Your task to perform on an android device: Go to Maps Image 0: 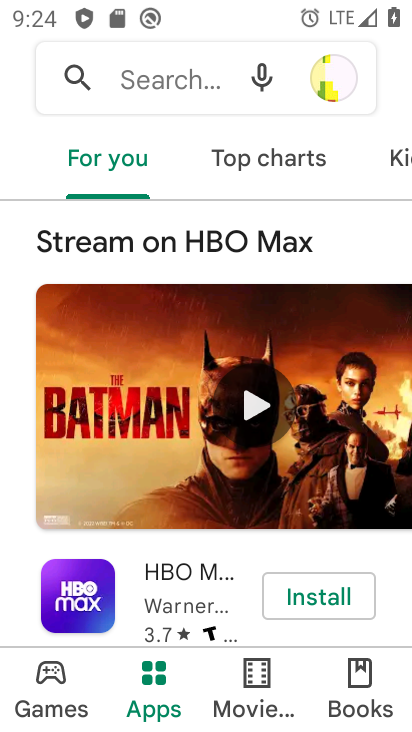
Step 0: click (210, 224)
Your task to perform on an android device: Go to Maps Image 1: 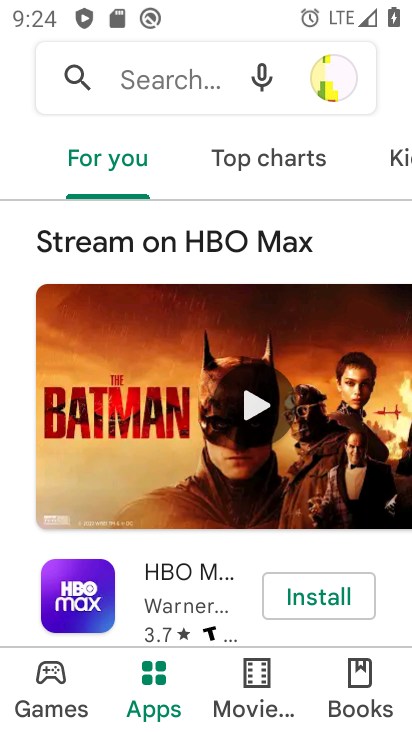
Step 1: drag from (127, 448) to (274, 113)
Your task to perform on an android device: Go to Maps Image 2: 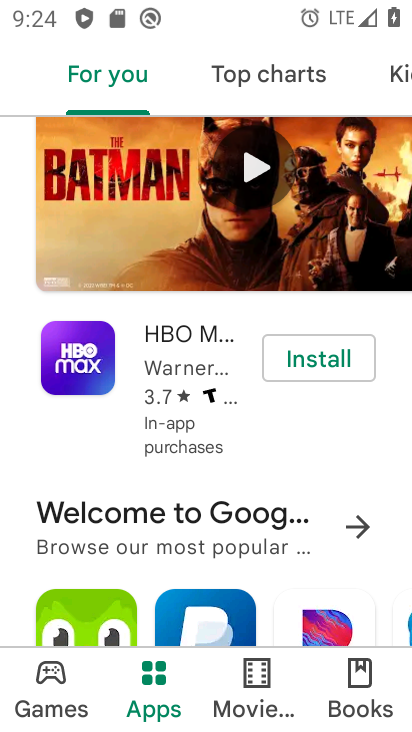
Step 2: drag from (242, 280) to (314, 676)
Your task to perform on an android device: Go to Maps Image 3: 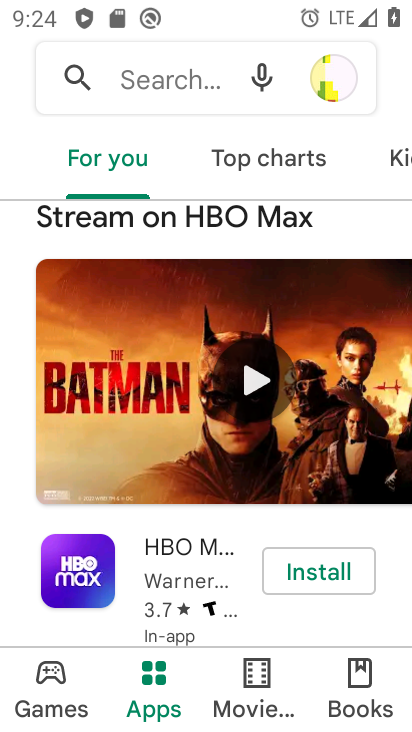
Step 3: press home button
Your task to perform on an android device: Go to Maps Image 4: 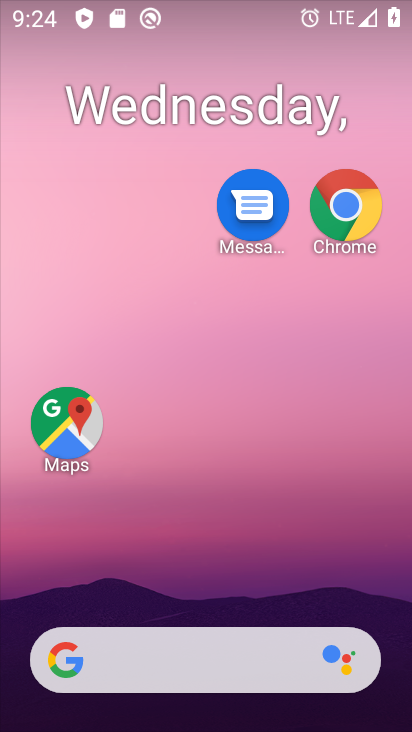
Step 4: click (62, 427)
Your task to perform on an android device: Go to Maps Image 5: 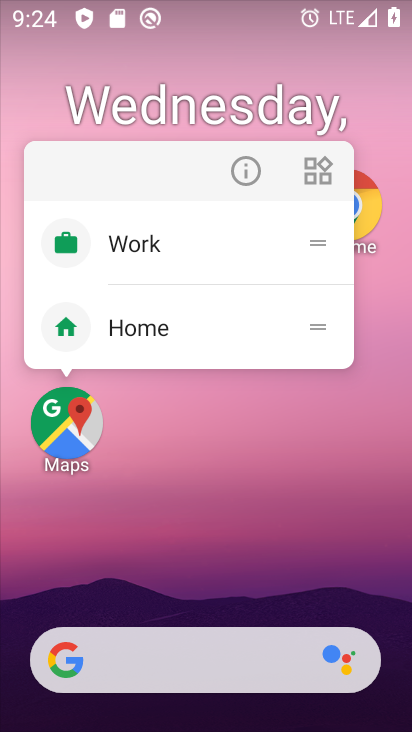
Step 5: click (226, 178)
Your task to perform on an android device: Go to Maps Image 6: 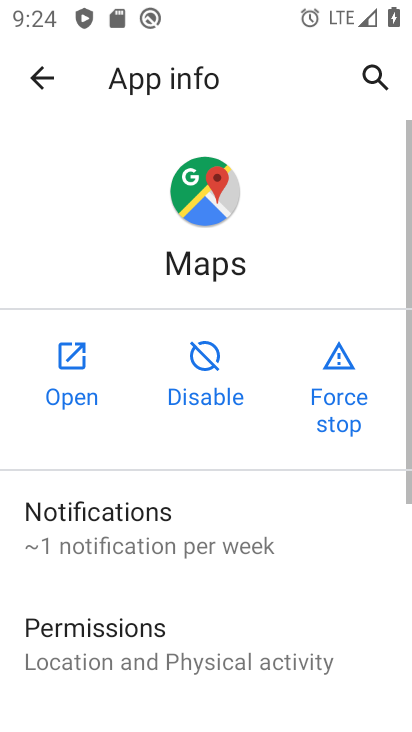
Step 6: click (77, 369)
Your task to perform on an android device: Go to Maps Image 7: 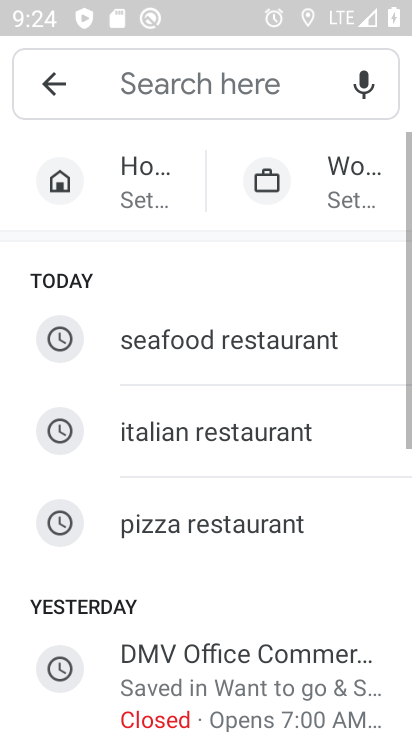
Step 7: task complete